Your task to perform on an android device: Is it going to rain this weekend? Image 0: 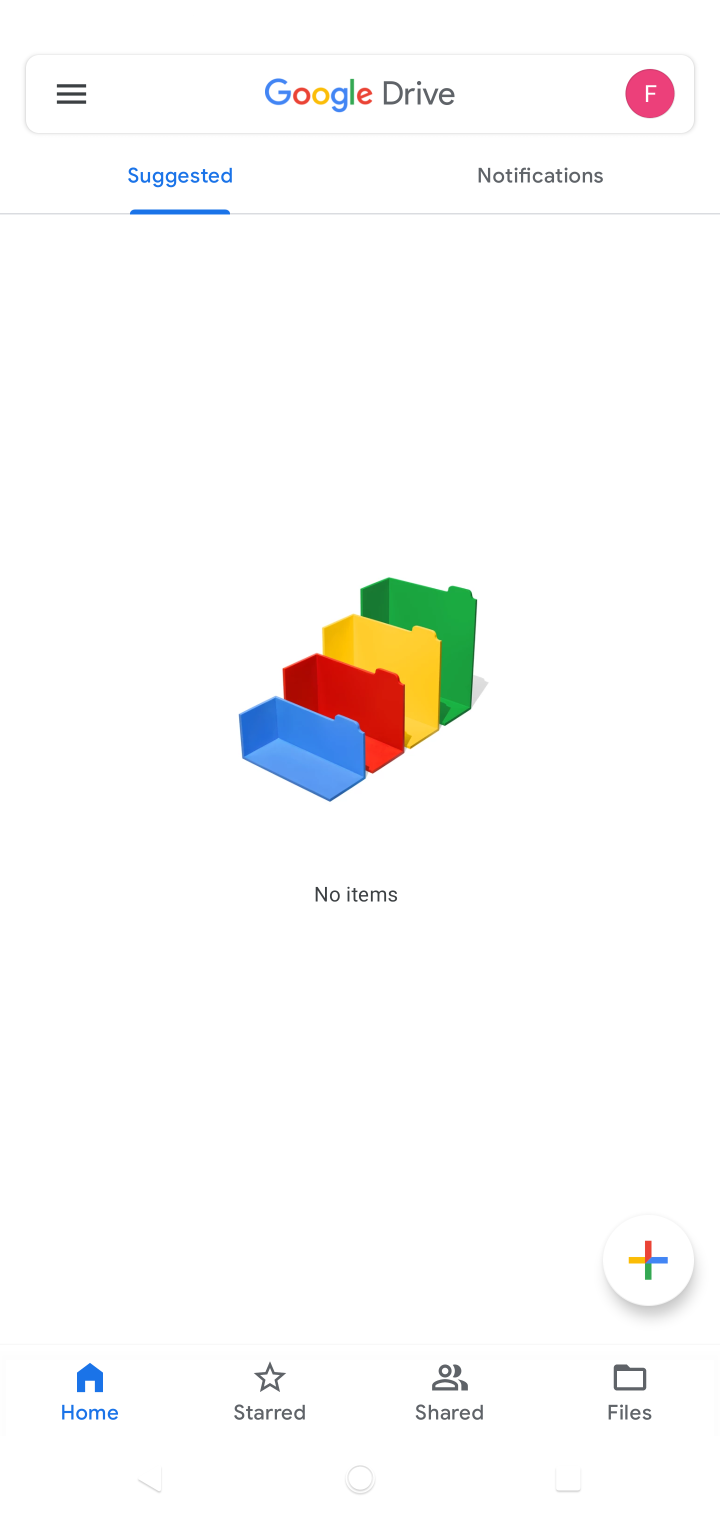
Step 0: press home button
Your task to perform on an android device: Is it going to rain this weekend? Image 1: 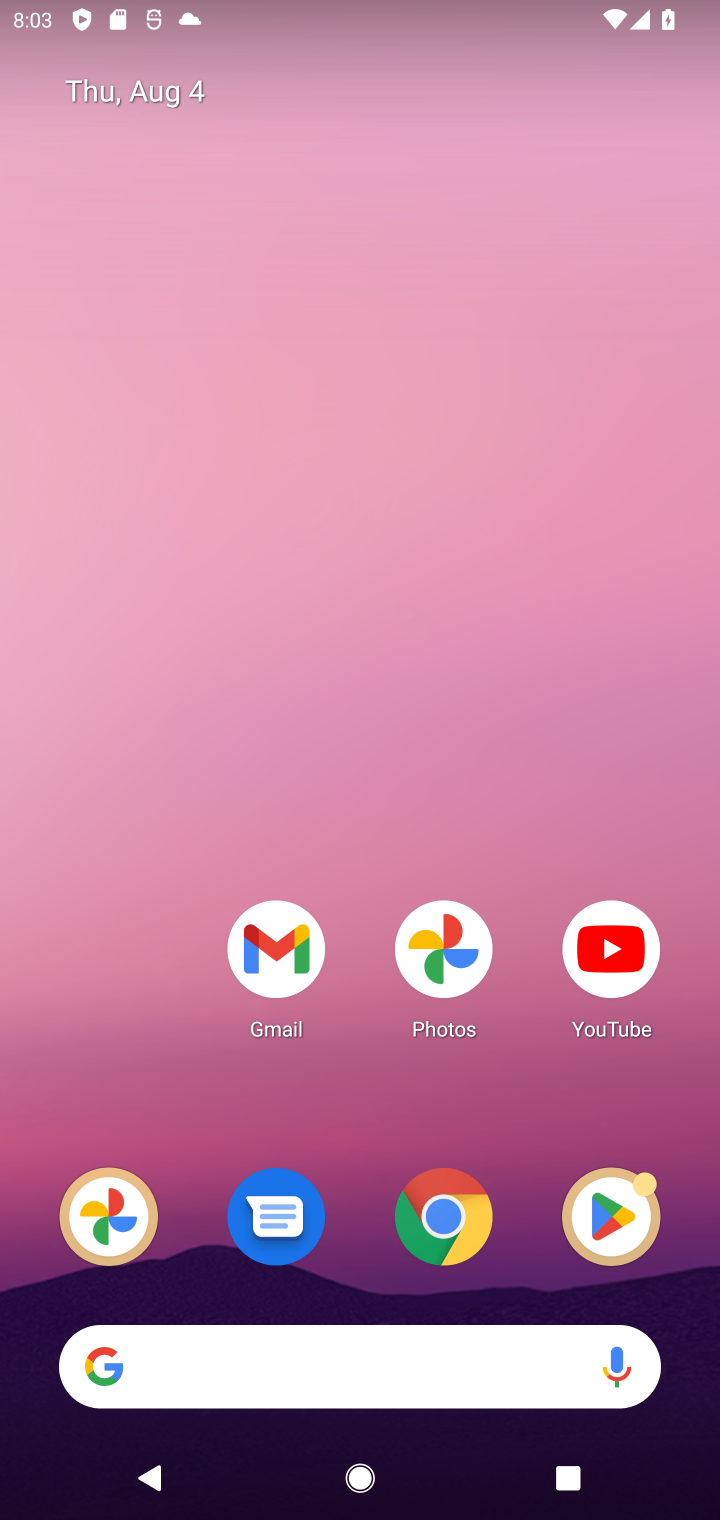
Step 1: drag from (365, 1288) to (365, 83)
Your task to perform on an android device: Is it going to rain this weekend? Image 2: 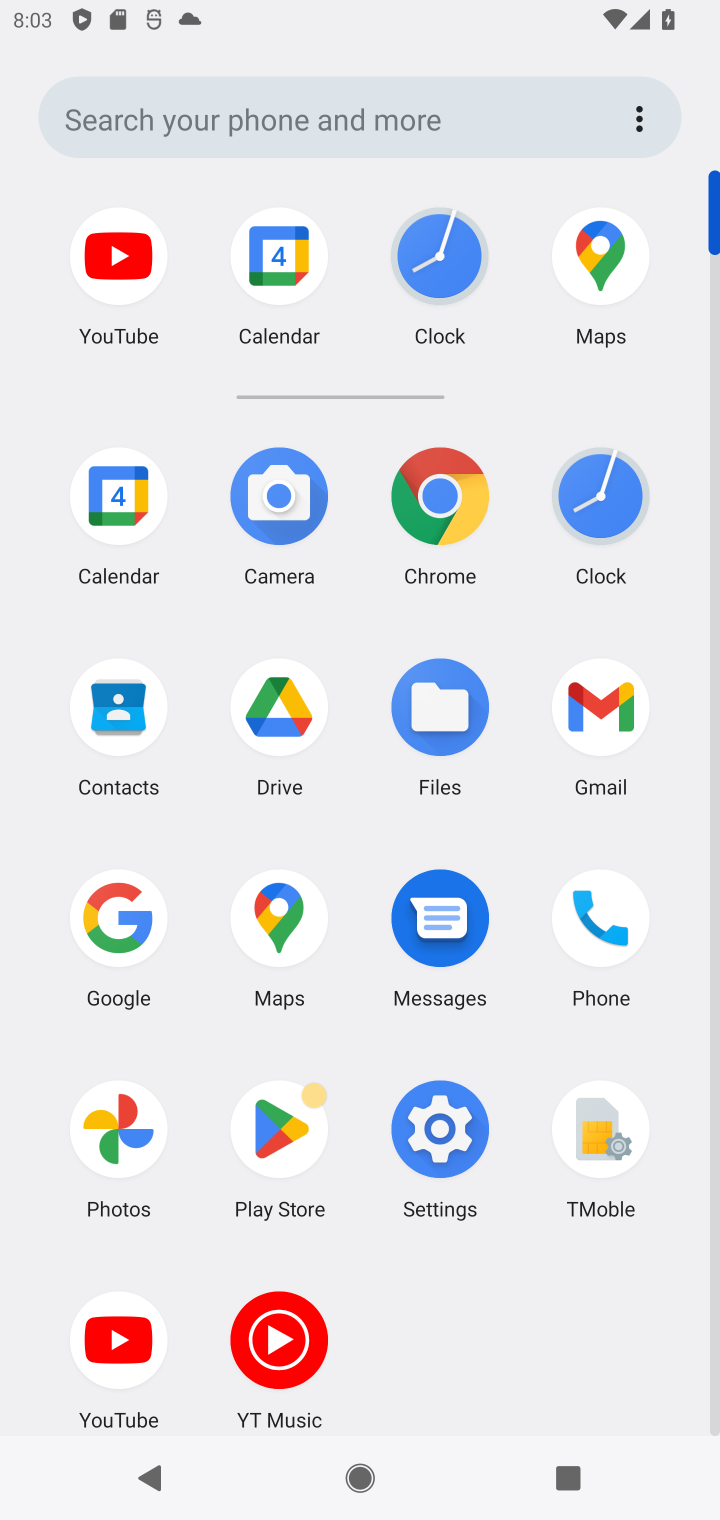
Step 2: click (122, 912)
Your task to perform on an android device: Is it going to rain this weekend? Image 3: 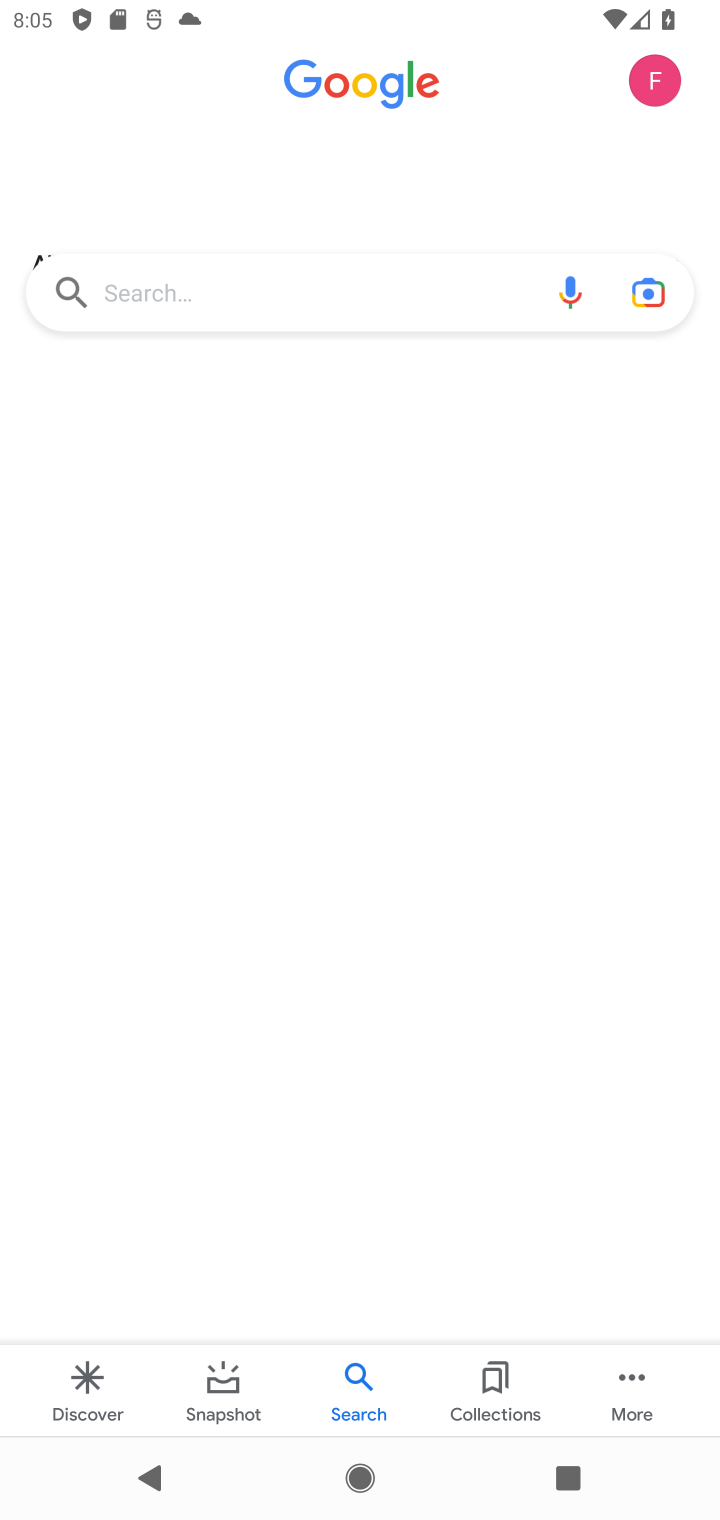
Step 3: click (363, 290)
Your task to perform on an android device: Is it going to rain this weekend? Image 4: 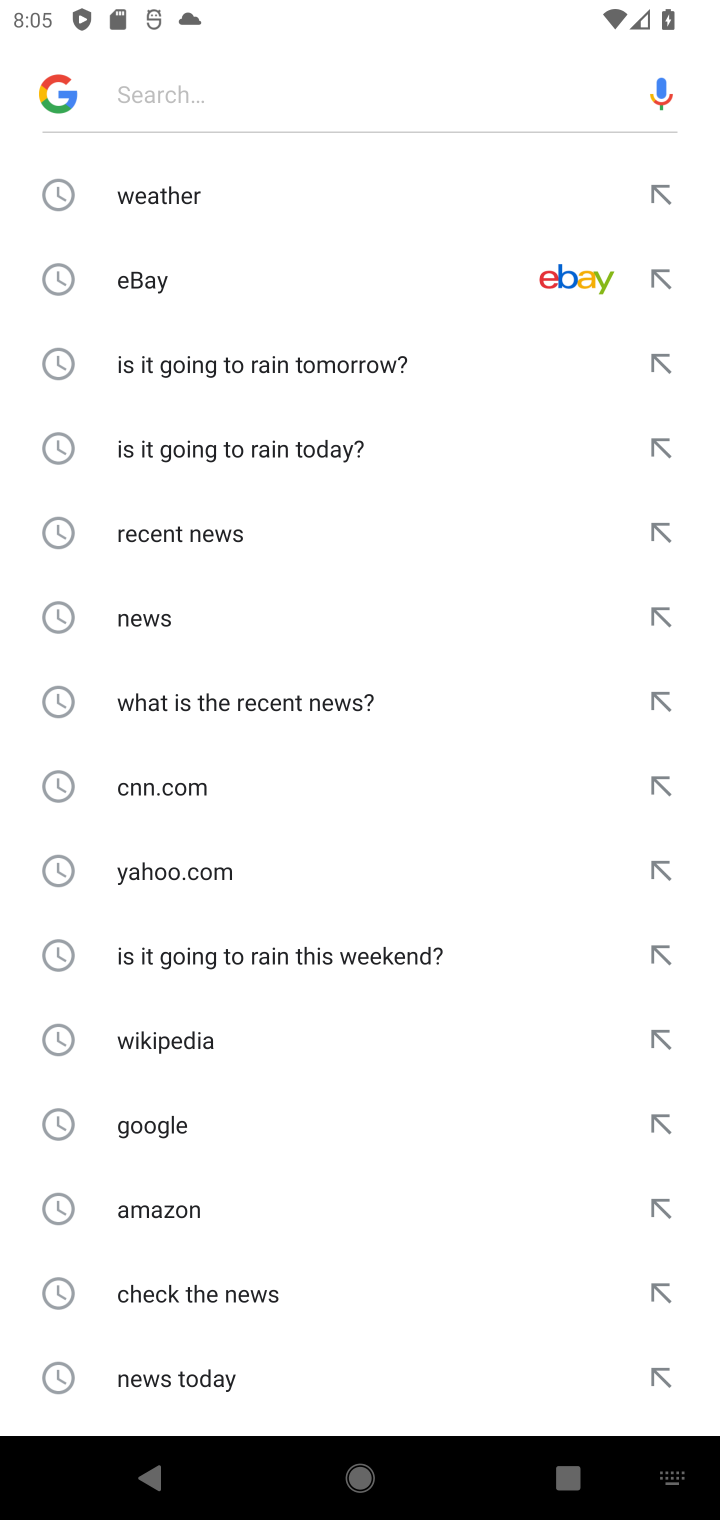
Step 4: click (149, 182)
Your task to perform on an android device: Is it going to rain this weekend? Image 5: 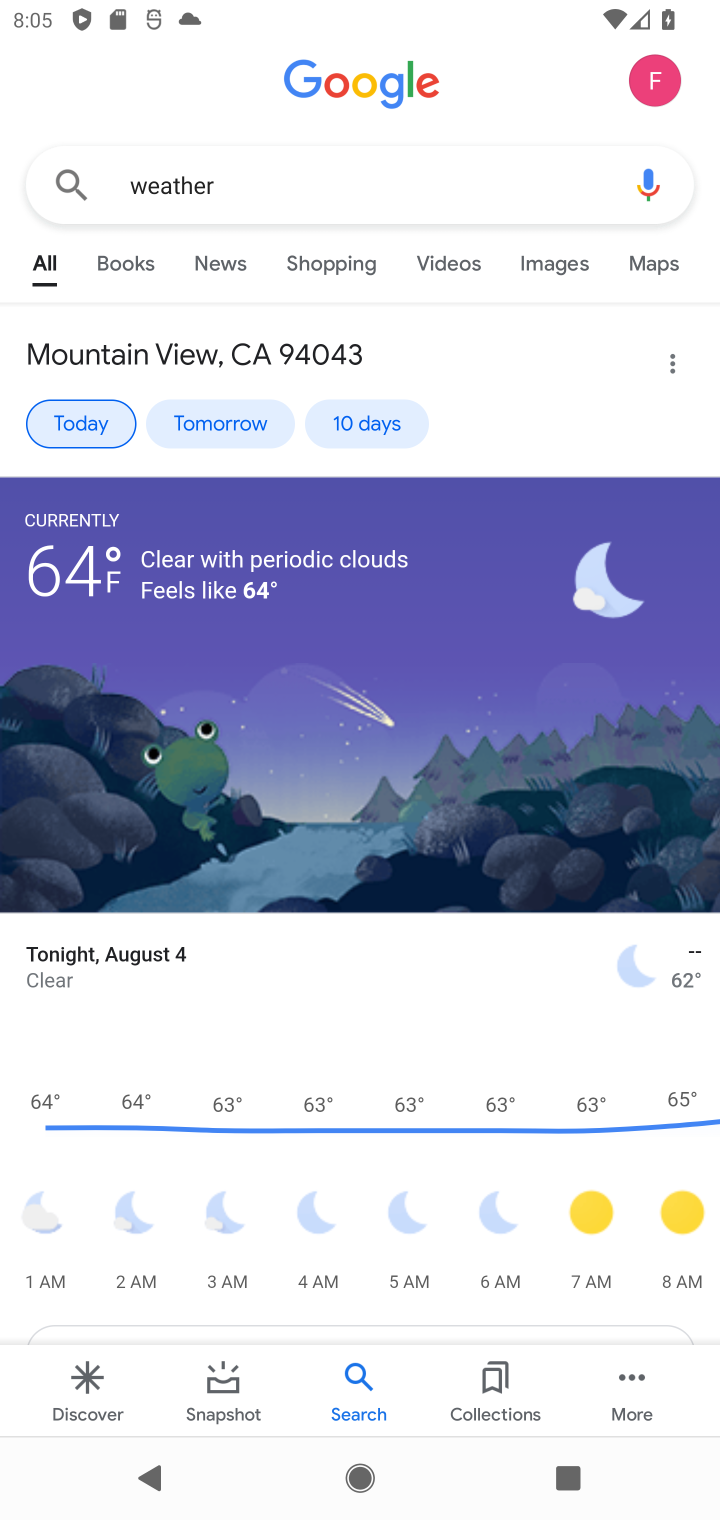
Step 5: click (372, 415)
Your task to perform on an android device: Is it going to rain this weekend? Image 6: 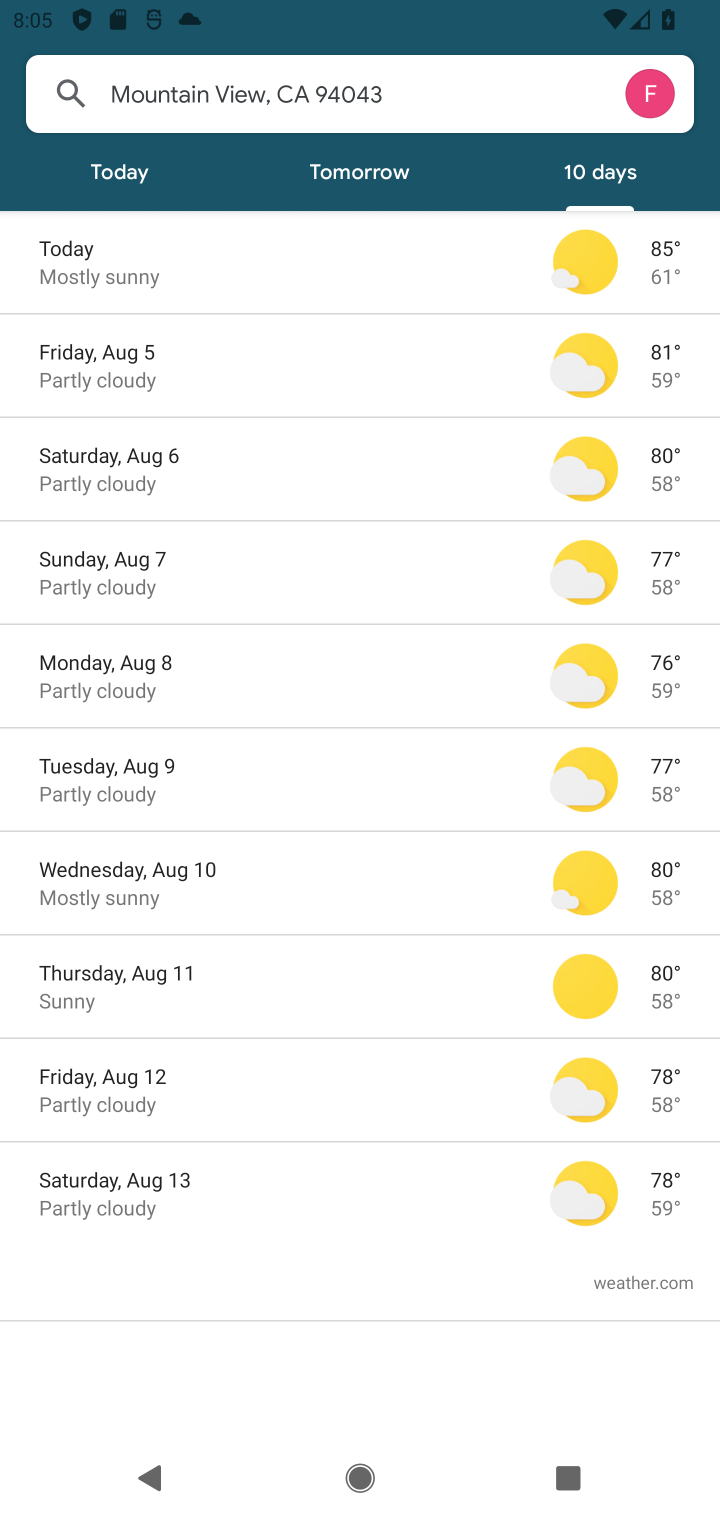
Step 6: click (154, 486)
Your task to perform on an android device: Is it going to rain this weekend? Image 7: 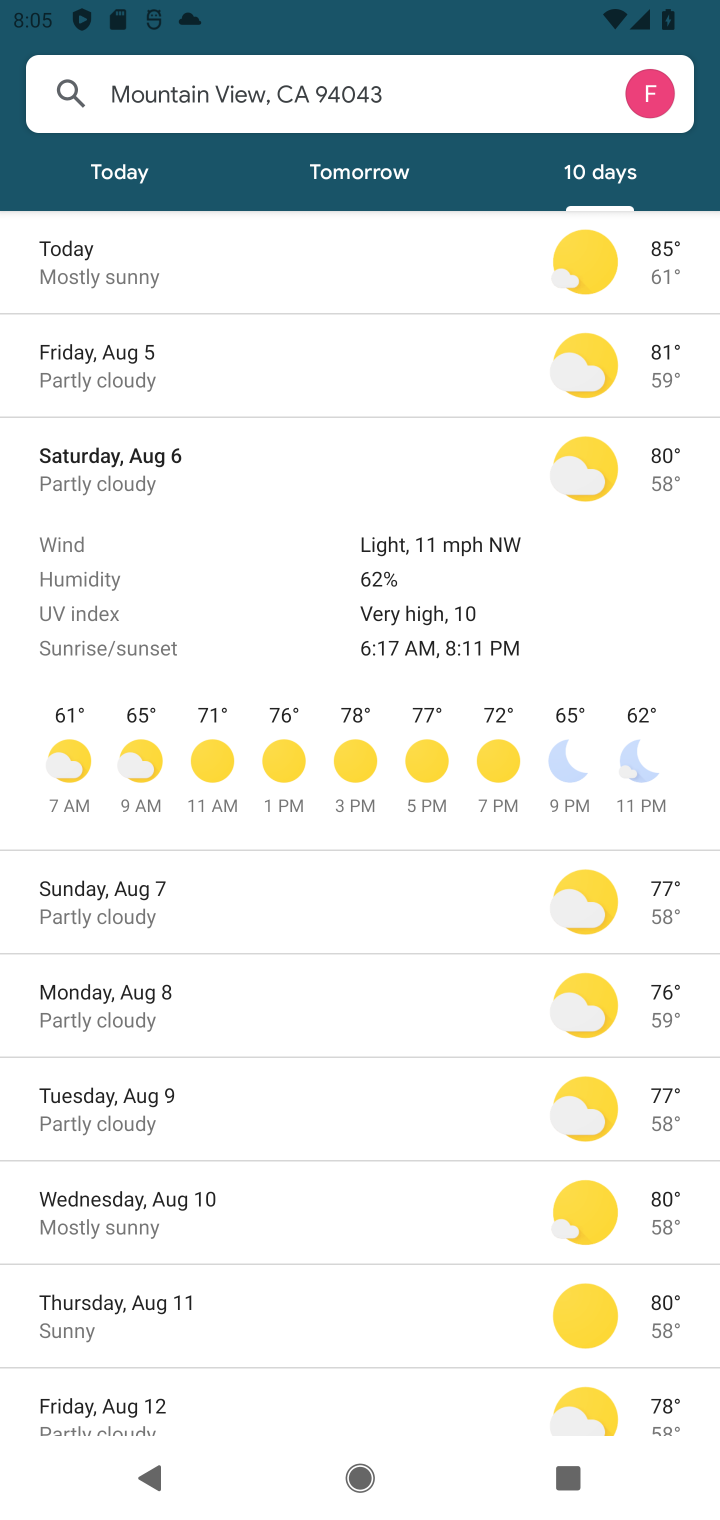
Step 7: task complete